Your task to perform on an android device: Go to CNN.com Image 0: 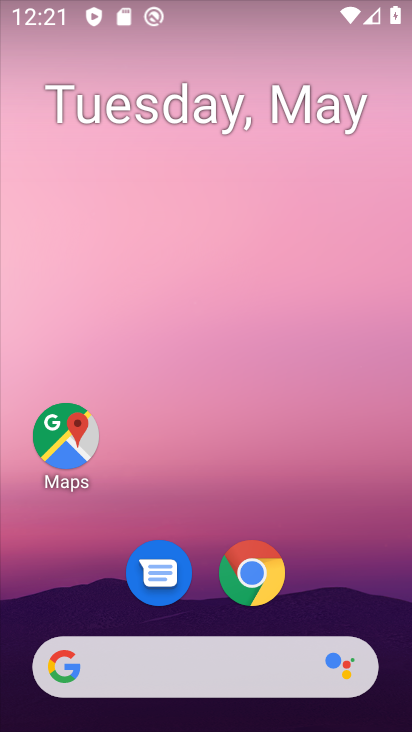
Step 0: drag from (330, 556) to (332, 115)
Your task to perform on an android device: Go to CNN.com Image 1: 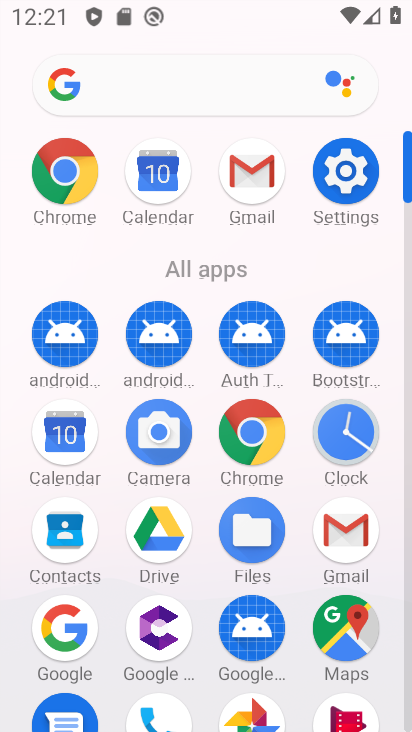
Step 1: click (277, 427)
Your task to perform on an android device: Go to CNN.com Image 2: 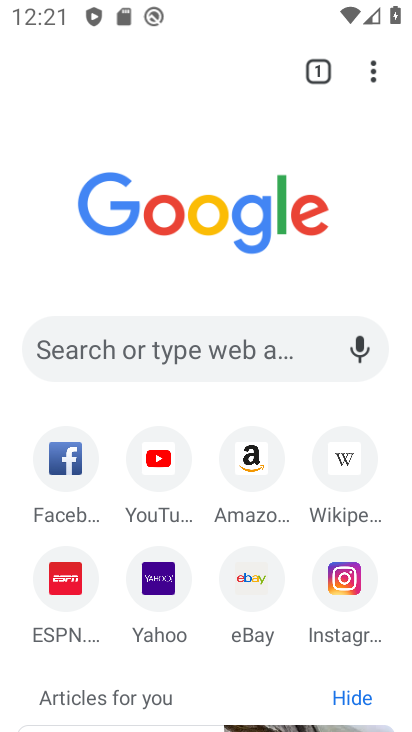
Step 2: drag from (383, 528) to (372, 228)
Your task to perform on an android device: Go to CNN.com Image 3: 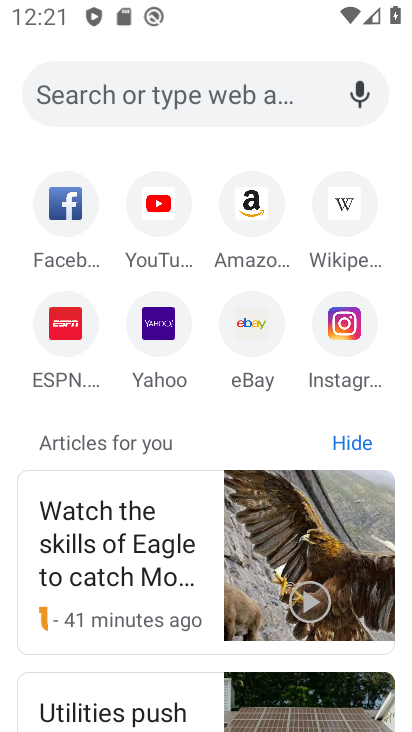
Step 3: click (213, 106)
Your task to perform on an android device: Go to CNN.com Image 4: 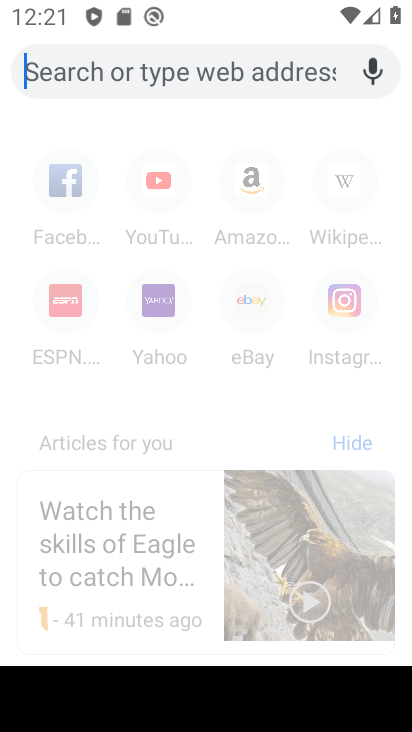
Step 4: type "cnn"
Your task to perform on an android device: Go to CNN.com Image 5: 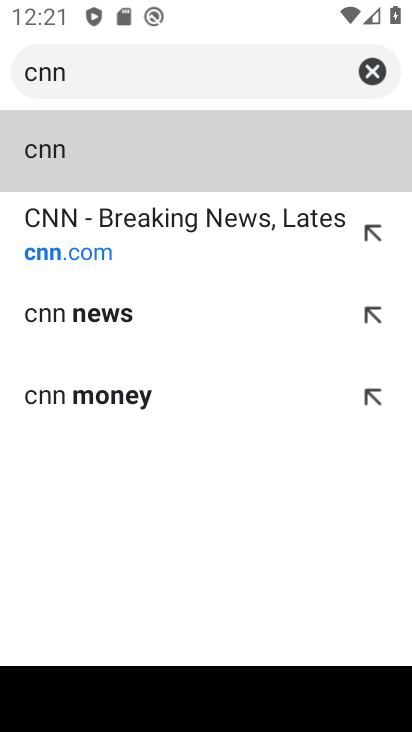
Step 5: click (136, 214)
Your task to perform on an android device: Go to CNN.com Image 6: 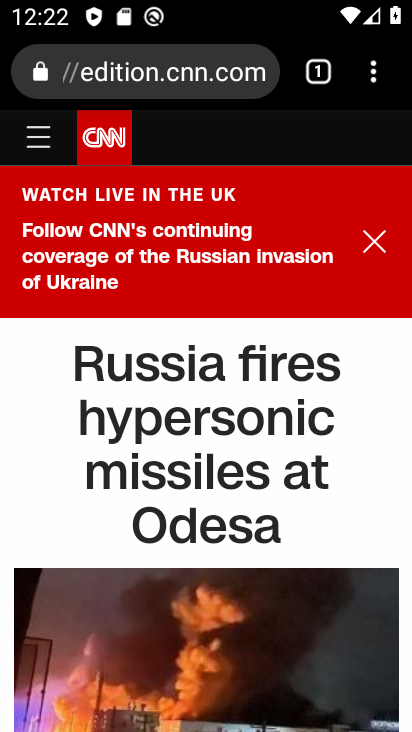
Step 6: task complete